Your task to perform on an android device: turn off wifi Image 0: 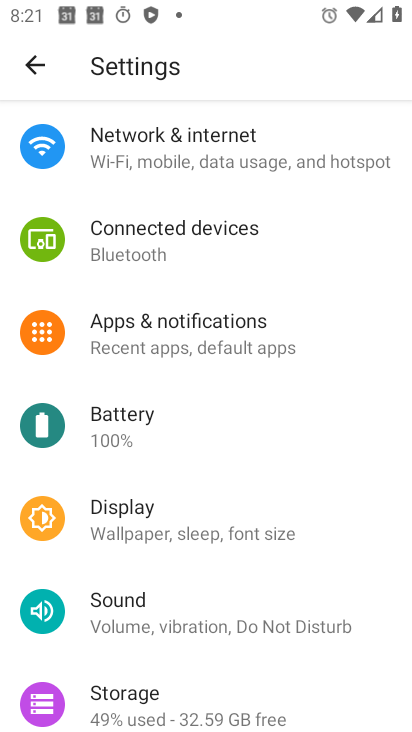
Step 0: click (188, 155)
Your task to perform on an android device: turn off wifi Image 1: 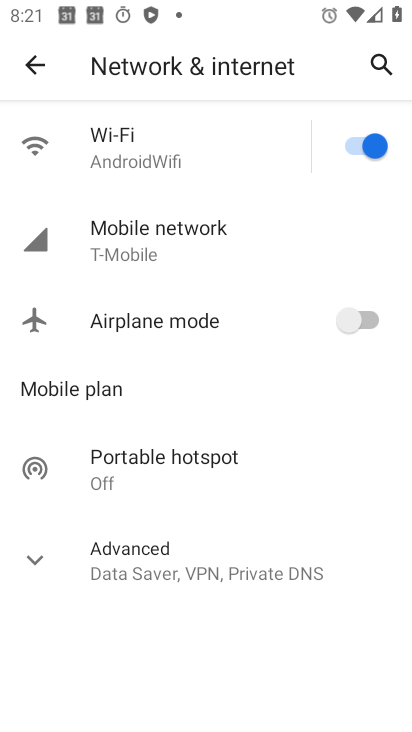
Step 1: click (357, 147)
Your task to perform on an android device: turn off wifi Image 2: 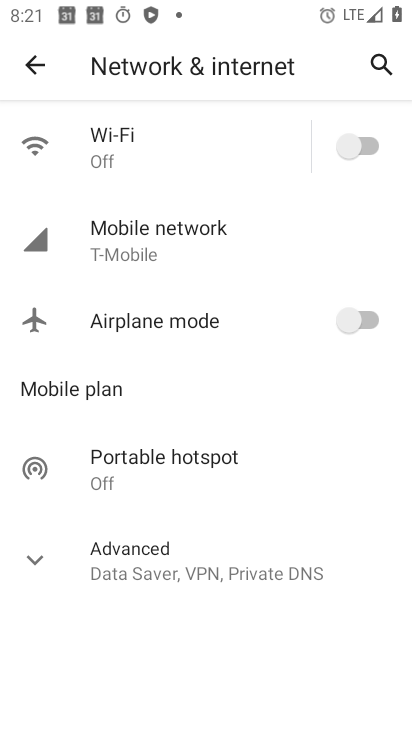
Step 2: task complete